Your task to perform on an android device: add a contact in the contacts app Image 0: 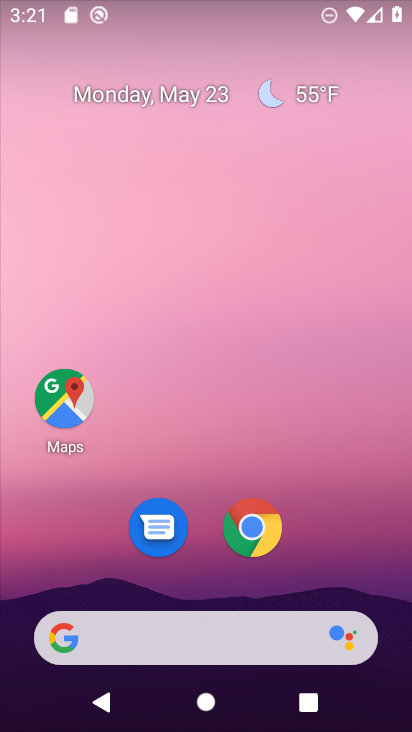
Step 0: drag from (219, 587) to (250, 27)
Your task to perform on an android device: add a contact in the contacts app Image 1: 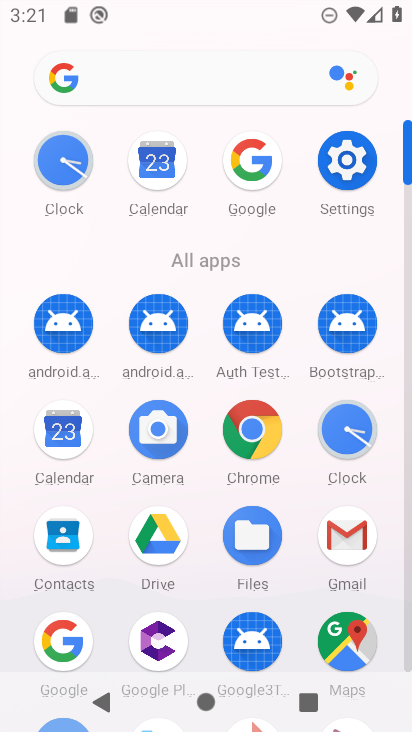
Step 1: click (58, 526)
Your task to perform on an android device: add a contact in the contacts app Image 2: 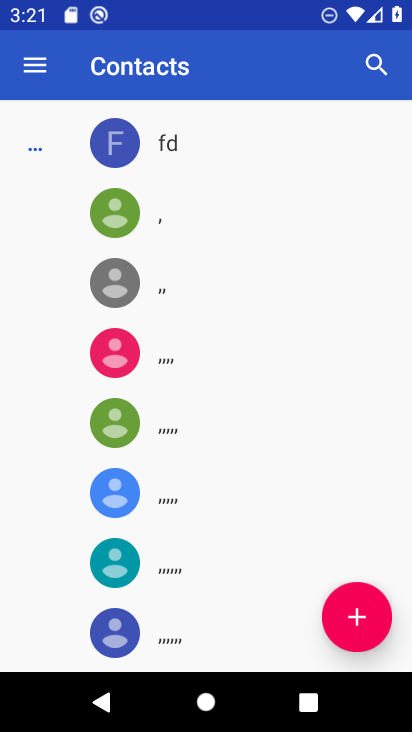
Step 2: click (352, 621)
Your task to perform on an android device: add a contact in the contacts app Image 3: 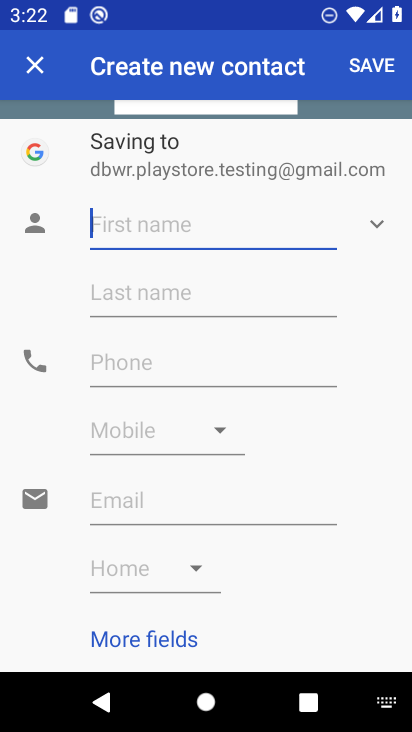
Step 3: type "gtdxrd"
Your task to perform on an android device: add a contact in the contacts app Image 4: 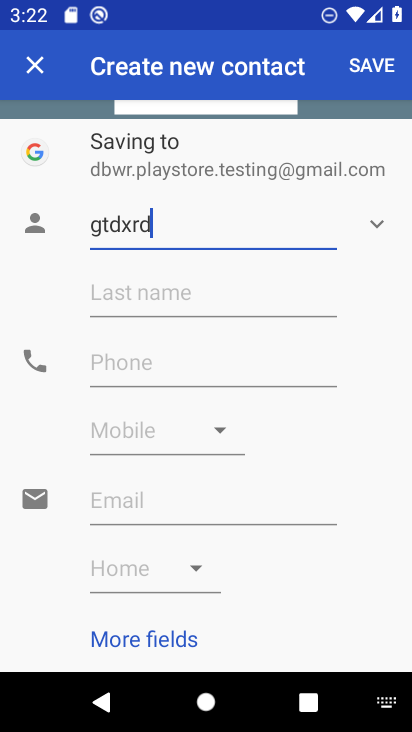
Step 4: click (366, 64)
Your task to perform on an android device: add a contact in the contacts app Image 5: 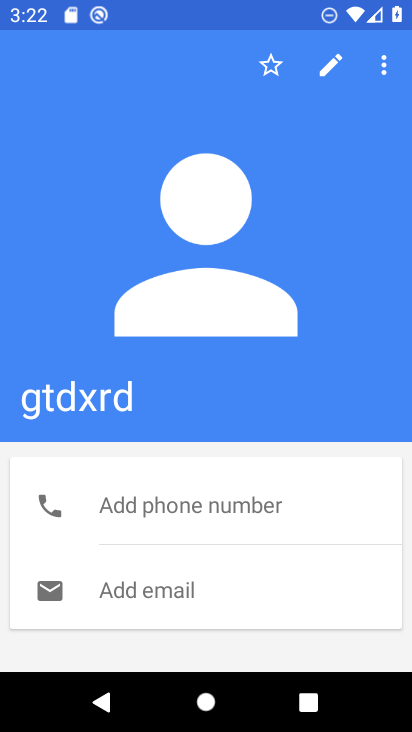
Step 5: task complete